Your task to perform on an android device: open a new tab in the chrome app Image 0: 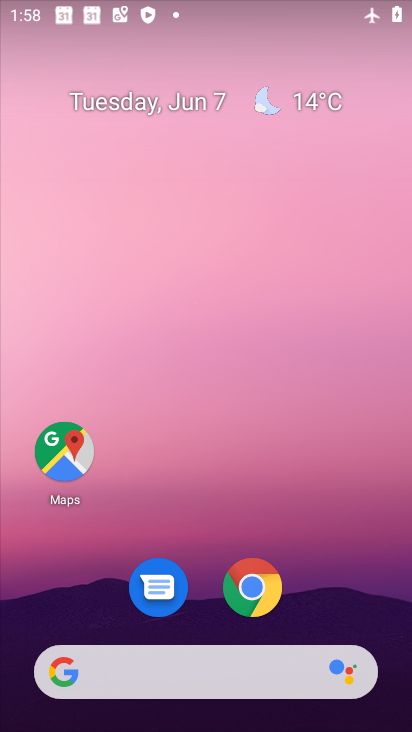
Step 0: drag from (209, 655) to (231, 111)
Your task to perform on an android device: open a new tab in the chrome app Image 1: 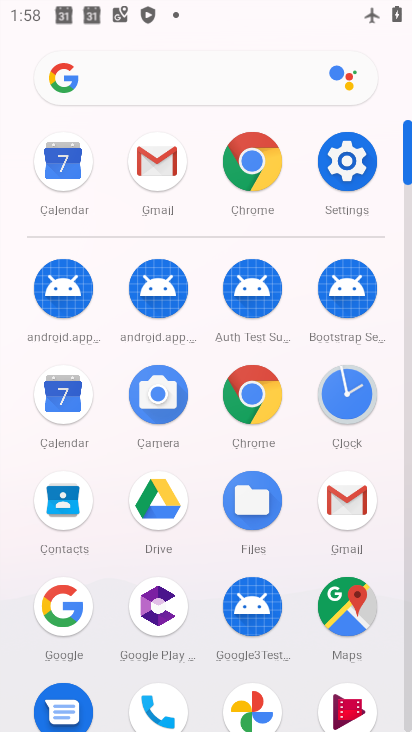
Step 1: click (265, 179)
Your task to perform on an android device: open a new tab in the chrome app Image 2: 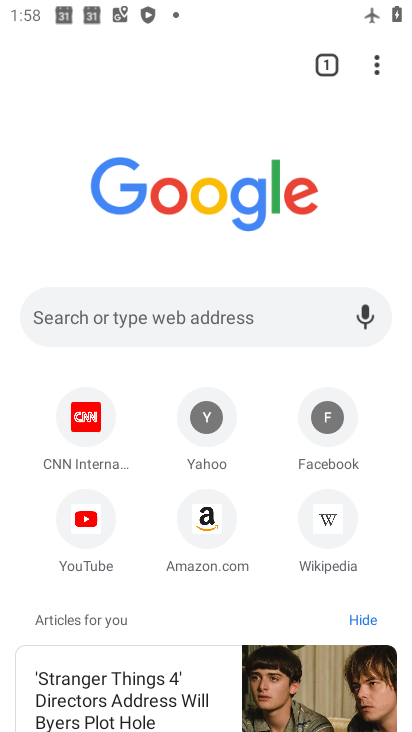
Step 2: drag from (322, 70) to (317, 109)
Your task to perform on an android device: open a new tab in the chrome app Image 3: 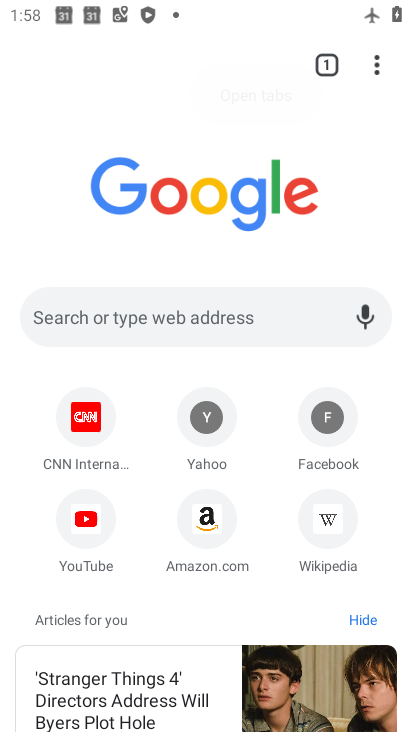
Step 3: drag from (327, 71) to (302, 298)
Your task to perform on an android device: open a new tab in the chrome app Image 4: 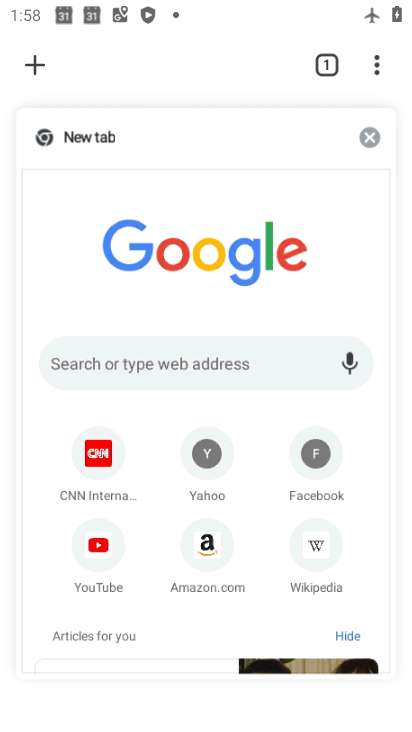
Step 4: click (42, 69)
Your task to perform on an android device: open a new tab in the chrome app Image 5: 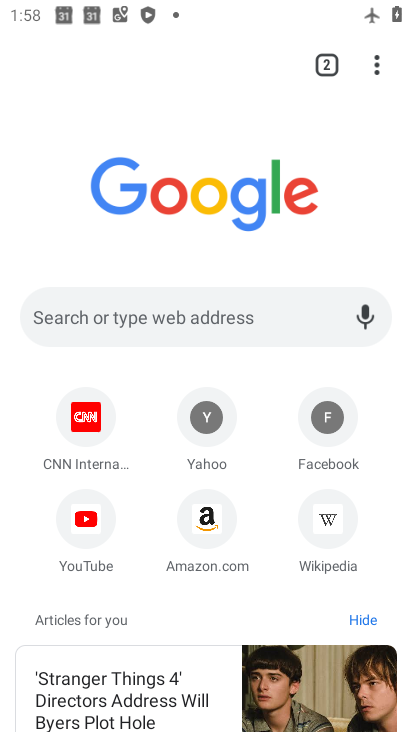
Step 5: task complete